Your task to perform on an android device: Go to Google Image 0: 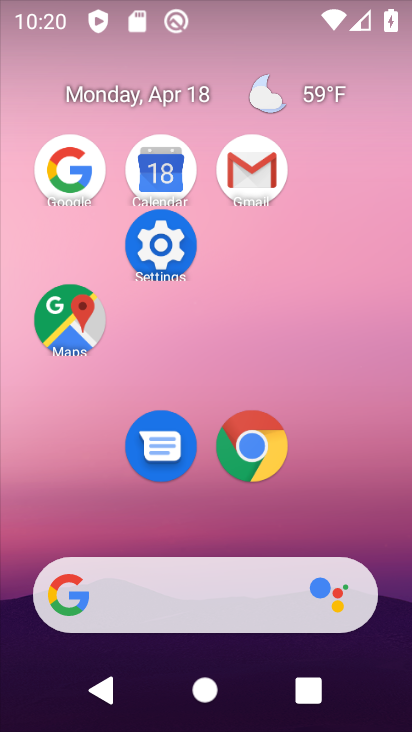
Step 0: click (265, 445)
Your task to perform on an android device: Go to Google Image 1: 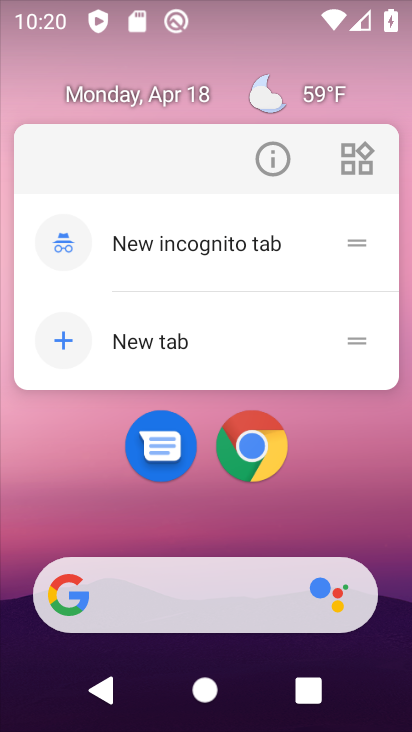
Step 1: click (236, 463)
Your task to perform on an android device: Go to Google Image 2: 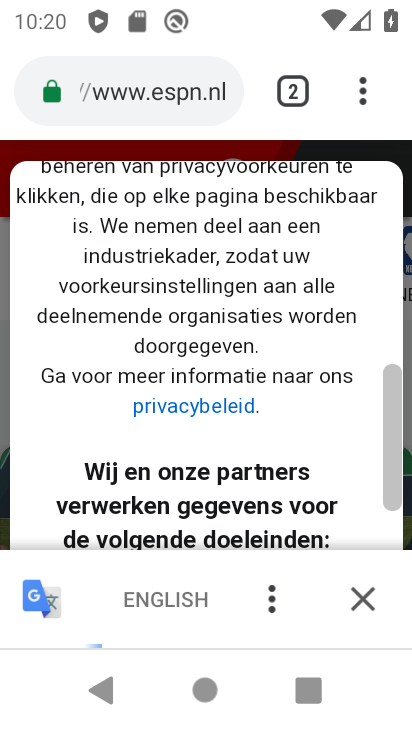
Step 2: task complete